Your task to perform on an android device: toggle translation in the chrome app Image 0: 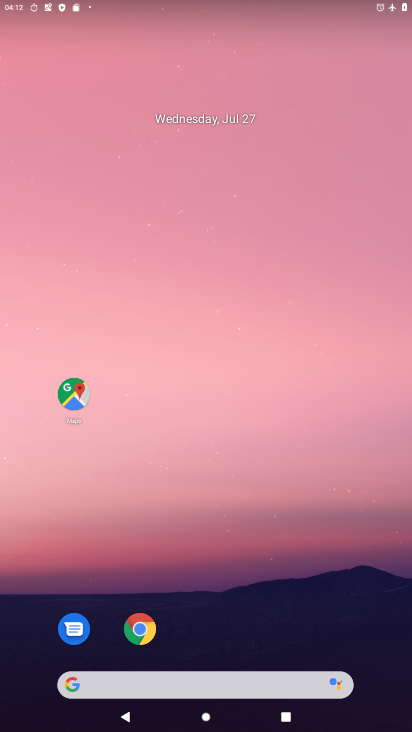
Step 0: drag from (337, 608) to (200, 88)
Your task to perform on an android device: toggle translation in the chrome app Image 1: 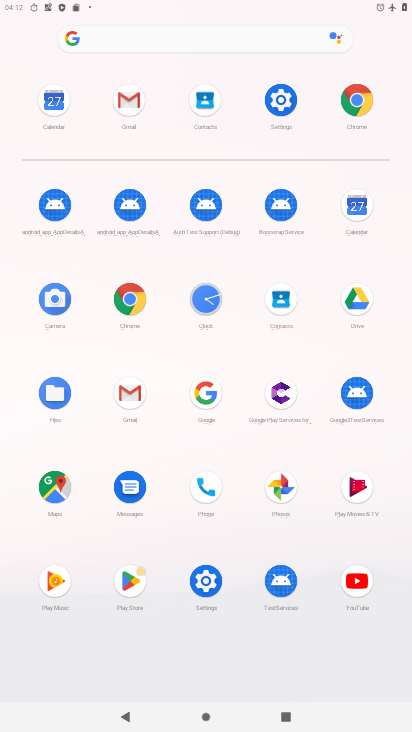
Step 1: click (127, 300)
Your task to perform on an android device: toggle translation in the chrome app Image 2: 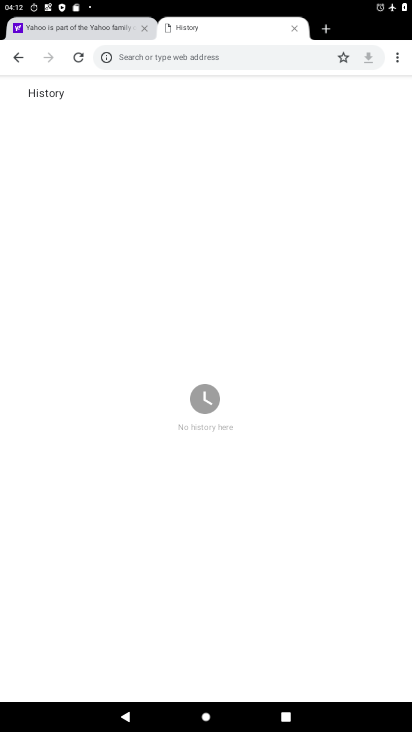
Step 2: drag from (393, 60) to (269, 259)
Your task to perform on an android device: toggle translation in the chrome app Image 3: 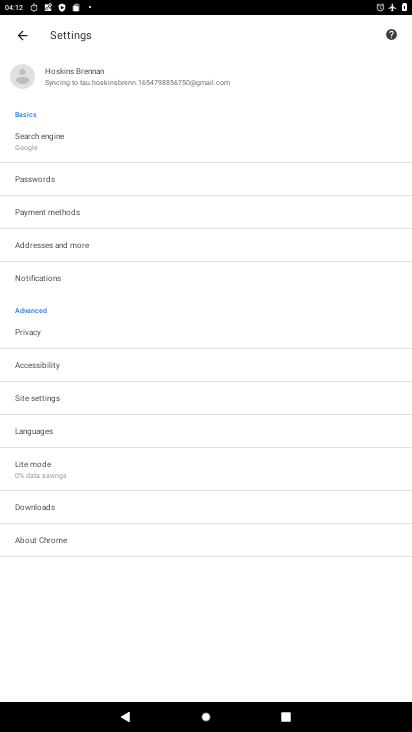
Step 3: click (44, 432)
Your task to perform on an android device: toggle translation in the chrome app Image 4: 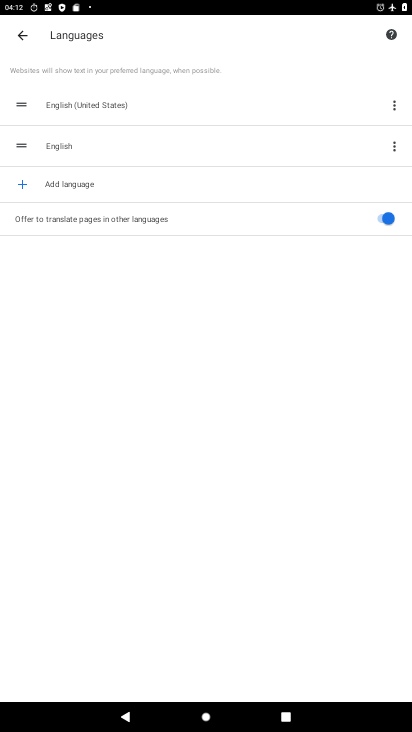
Step 4: click (381, 210)
Your task to perform on an android device: toggle translation in the chrome app Image 5: 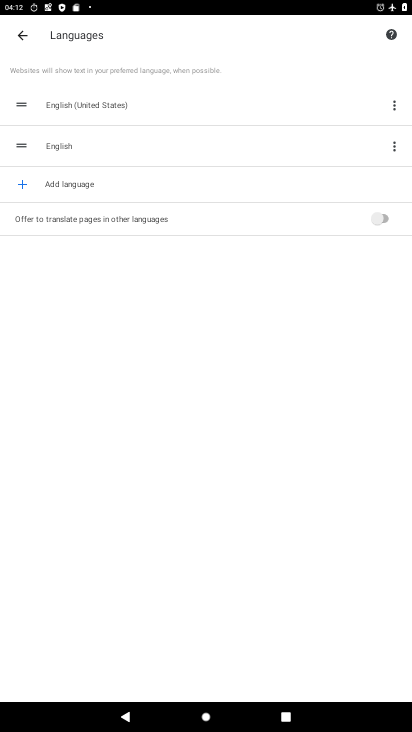
Step 5: task complete